Your task to perform on an android device: Open Yahoo.com Image 0: 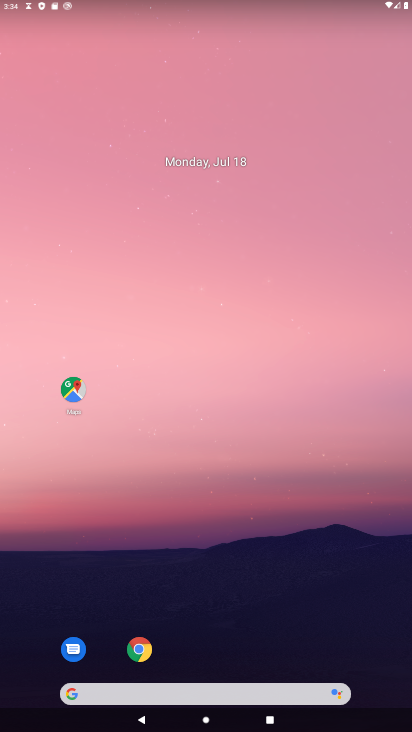
Step 0: press home button
Your task to perform on an android device: Open Yahoo.com Image 1: 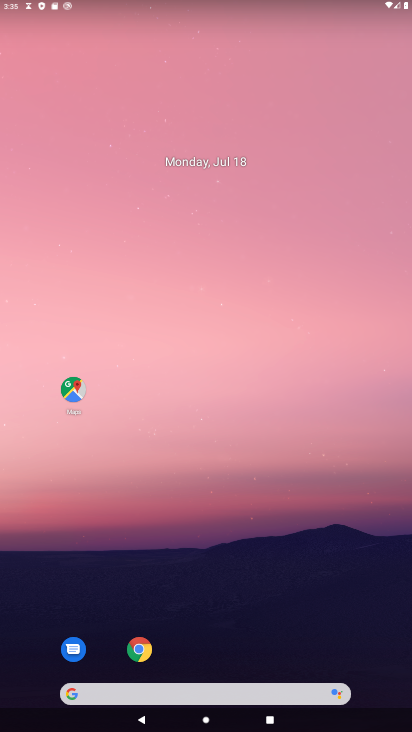
Step 1: click (71, 691)
Your task to perform on an android device: Open Yahoo.com Image 2: 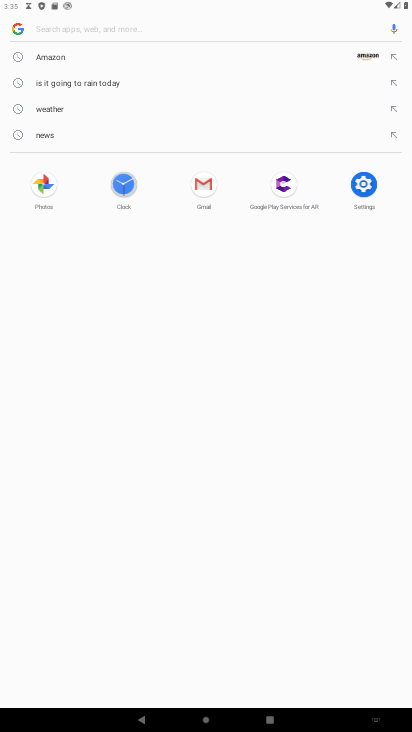
Step 2: type "Yahoo.com"
Your task to perform on an android device: Open Yahoo.com Image 3: 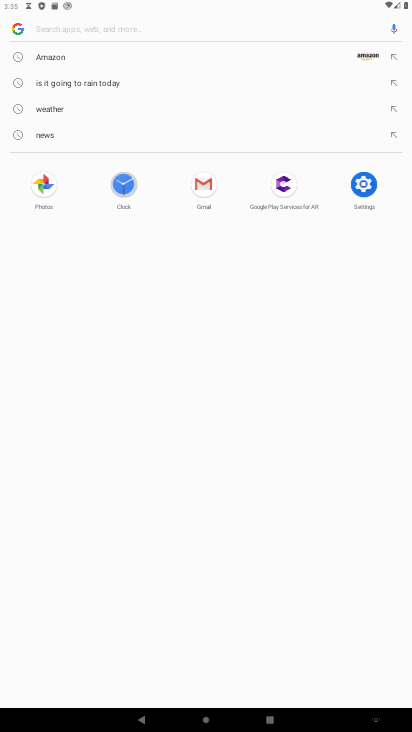
Step 3: click (98, 29)
Your task to perform on an android device: Open Yahoo.com Image 4: 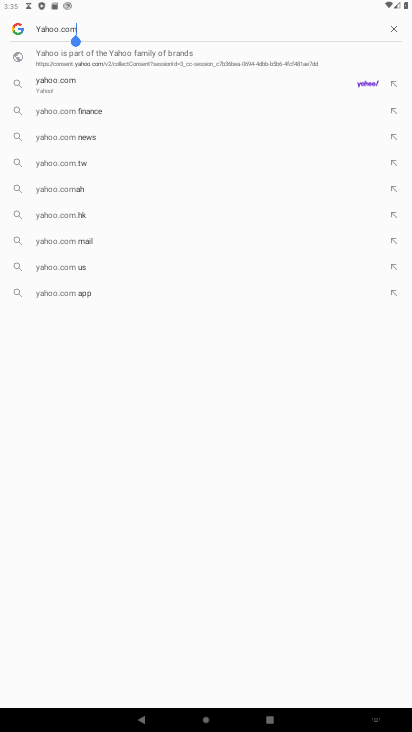
Step 4: press enter
Your task to perform on an android device: Open Yahoo.com Image 5: 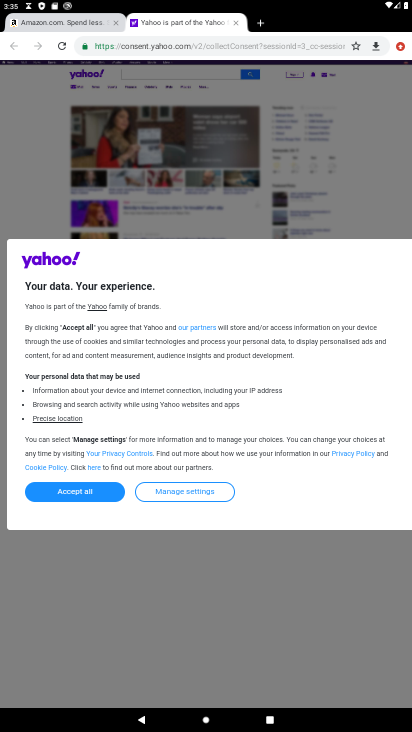
Step 5: click (55, 490)
Your task to perform on an android device: Open Yahoo.com Image 6: 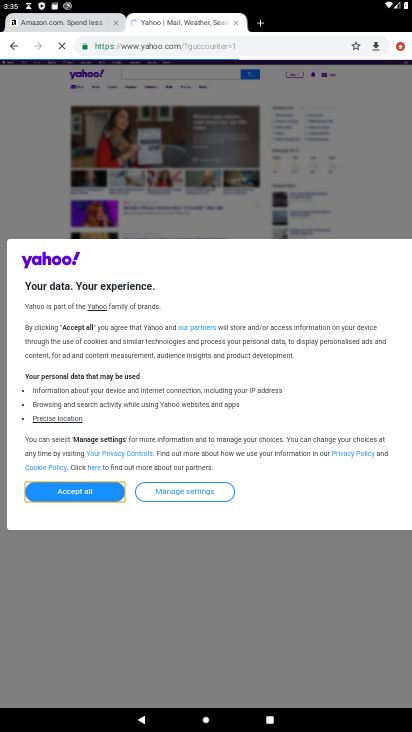
Step 6: click (105, 488)
Your task to perform on an android device: Open Yahoo.com Image 7: 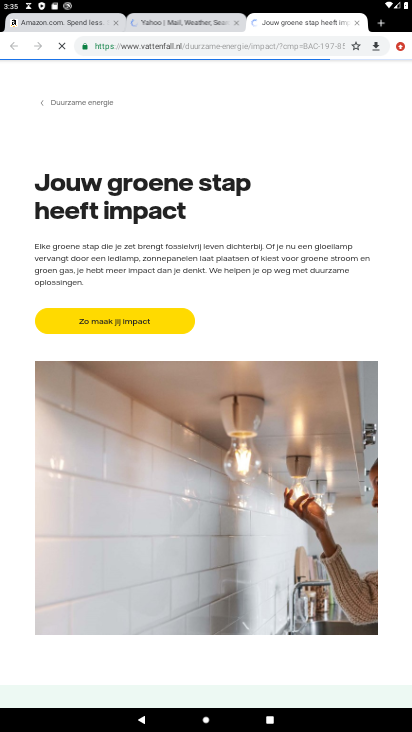
Step 7: task complete